Your task to perform on an android device: Open battery settings Image 0: 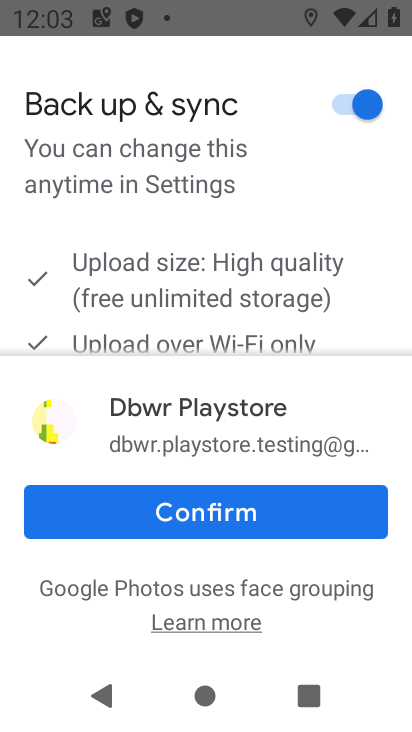
Step 0: press home button
Your task to perform on an android device: Open battery settings Image 1: 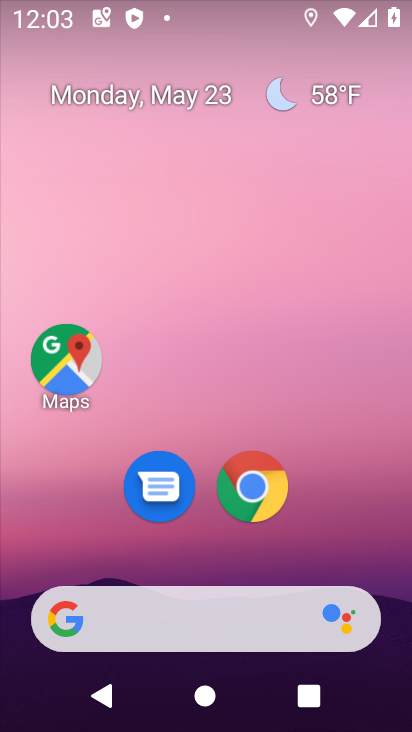
Step 1: drag from (396, 594) to (294, 88)
Your task to perform on an android device: Open battery settings Image 2: 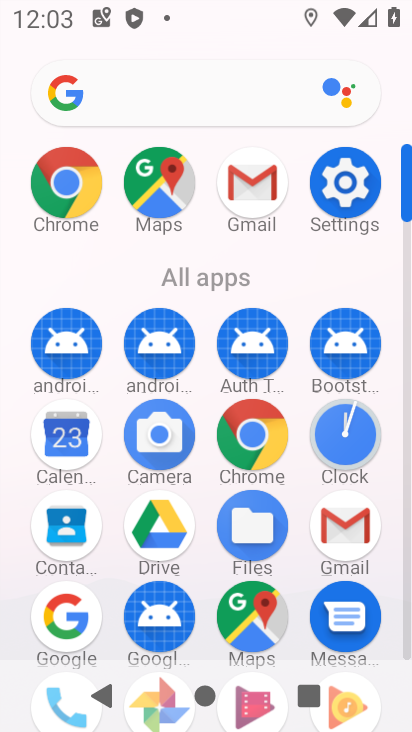
Step 2: click (405, 648)
Your task to perform on an android device: Open battery settings Image 3: 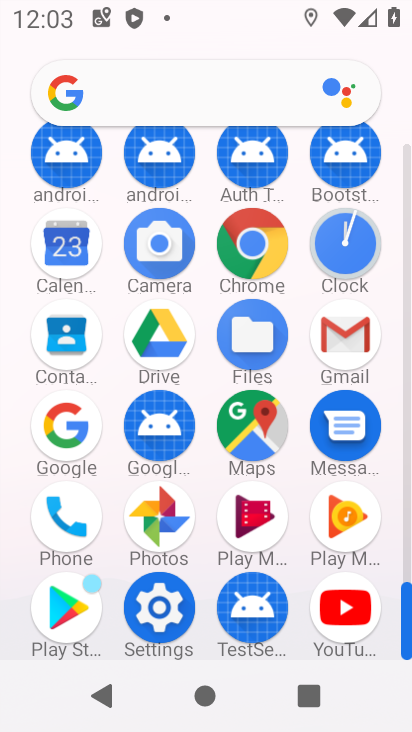
Step 3: click (160, 609)
Your task to perform on an android device: Open battery settings Image 4: 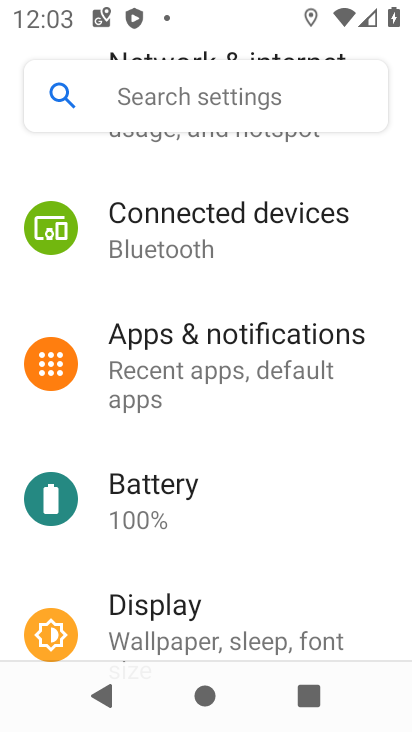
Step 4: click (145, 508)
Your task to perform on an android device: Open battery settings Image 5: 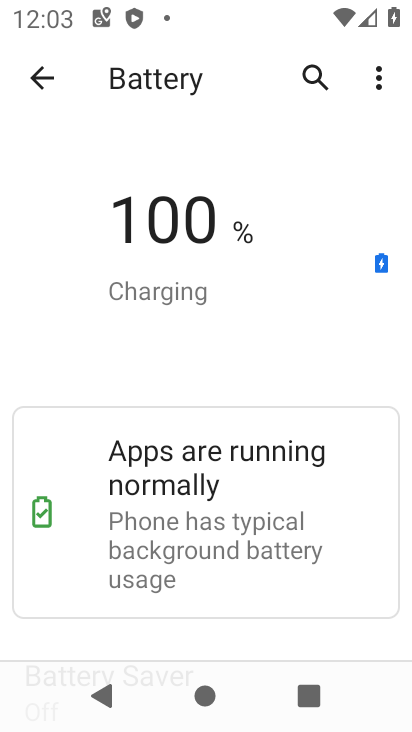
Step 5: task complete